Your task to perform on an android device: toggle pop-ups in chrome Image 0: 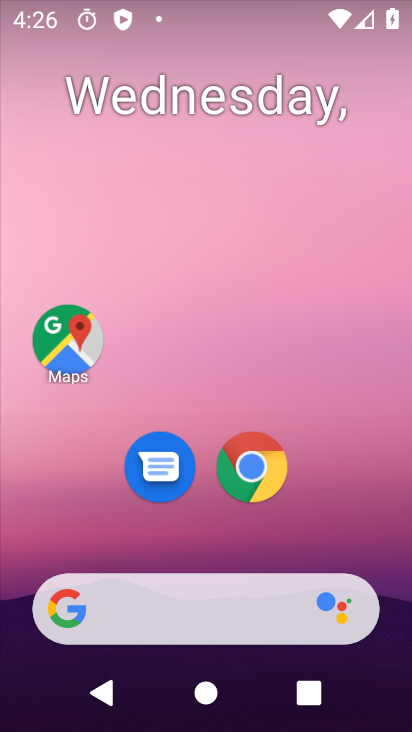
Step 0: click (255, 466)
Your task to perform on an android device: toggle pop-ups in chrome Image 1: 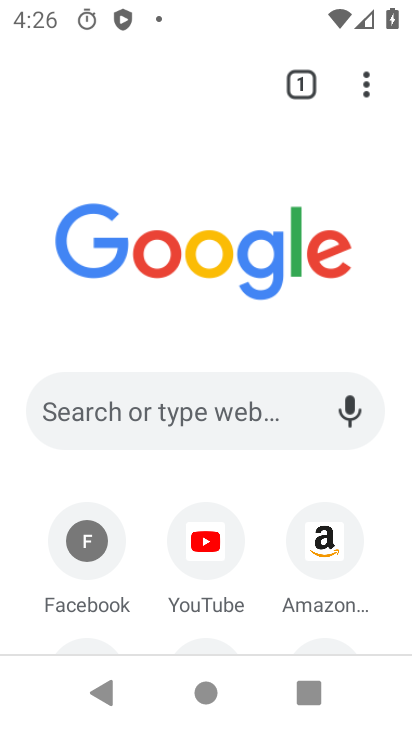
Step 1: click (359, 81)
Your task to perform on an android device: toggle pop-ups in chrome Image 2: 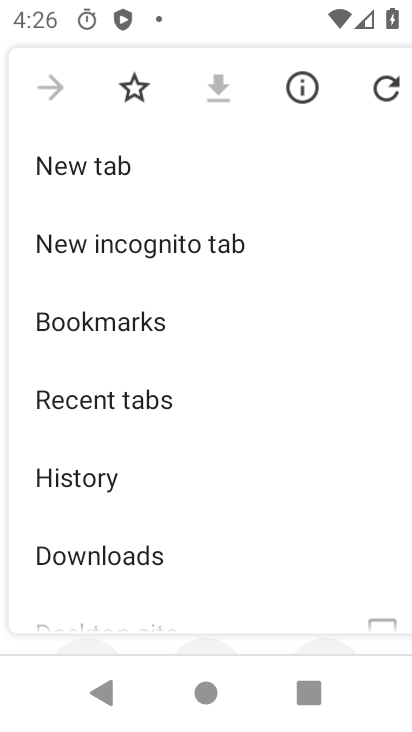
Step 2: drag from (233, 588) to (267, 273)
Your task to perform on an android device: toggle pop-ups in chrome Image 3: 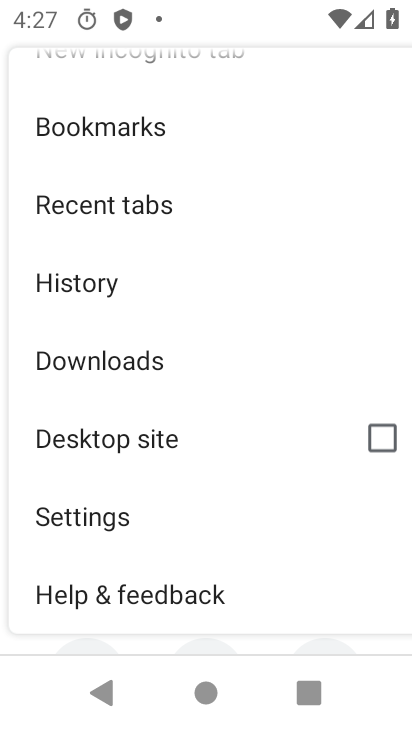
Step 3: click (91, 518)
Your task to perform on an android device: toggle pop-ups in chrome Image 4: 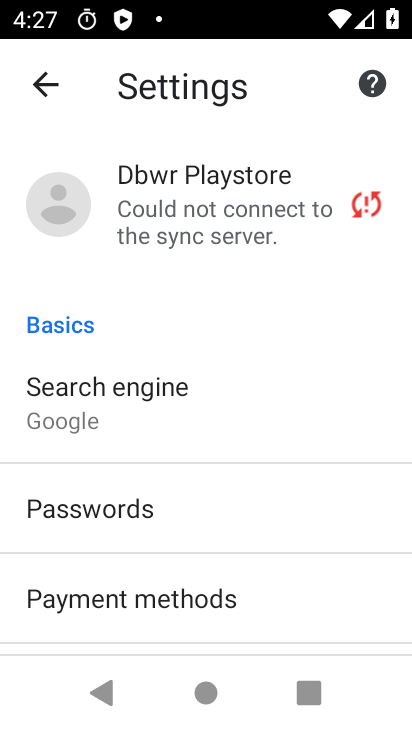
Step 4: drag from (318, 318) to (319, 283)
Your task to perform on an android device: toggle pop-ups in chrome Image 5: 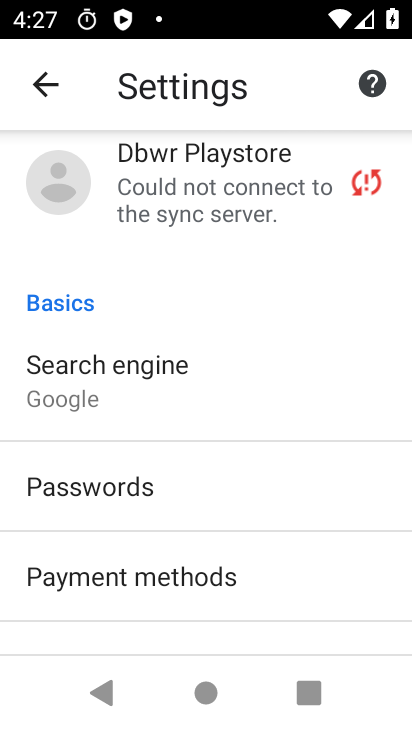
Step 5: drag from (274, 589) to (252, 269)
Your task to perform on an android device: toggle pop-ups in chrome Image 6: 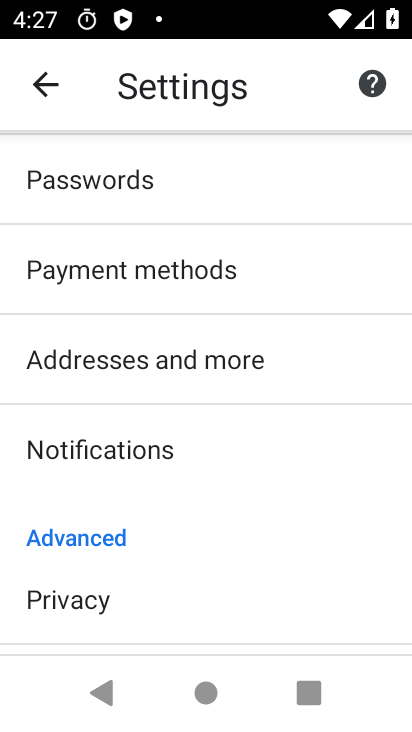
Step 6: drag from (169, 603) to (209, 300)
Your task to perform on an android device: toggle pop-ups in chrome Image 7: 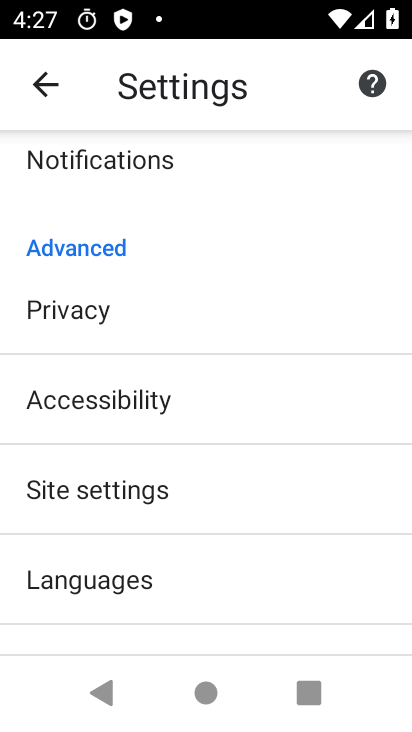
Step 7: click (109, 485)
Your task to perform on an android device: toggle pop-ups in chrome Image 8: 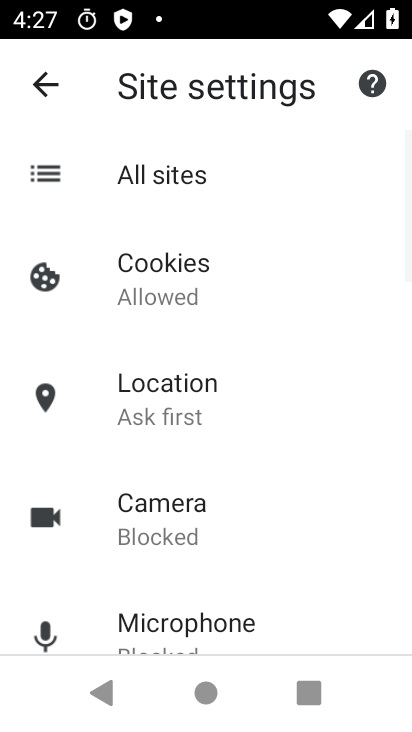
Step 8: drag from (301, 620) to (294, 314)
Your task to perform on an android device: toggle pop-ups in chrome Image 9: 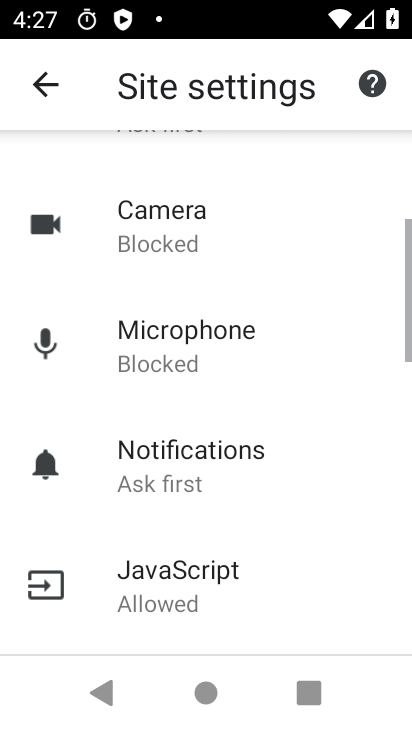
Step 9: drag from (308, 591) to (276, 169)
Your task to perform on an android device: toggle pop-ups in chrome Image 10: 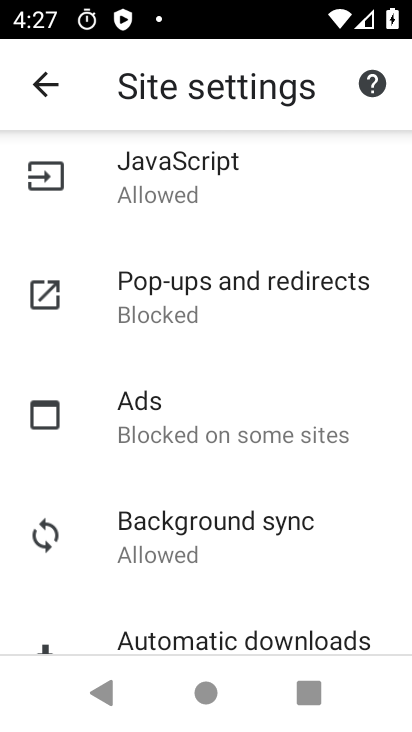
Step 10: click (192, 292)
Your task to perform on an android device: toggle pop-ups in chrome Image 11: 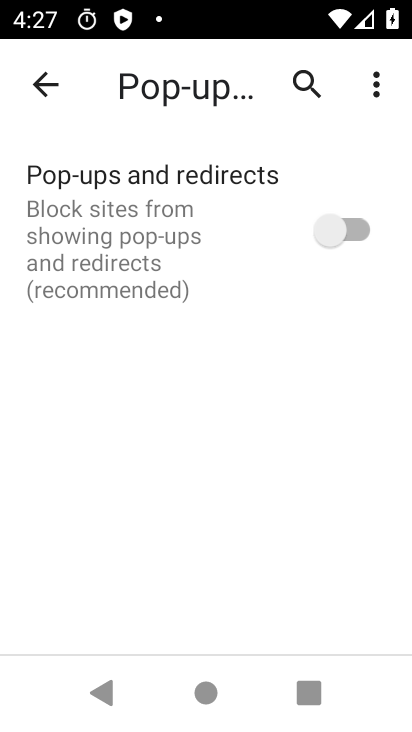
Step 11: click (341, 223)
Your task to perform on an android device: toggle pop-ups in chrome Image 12: 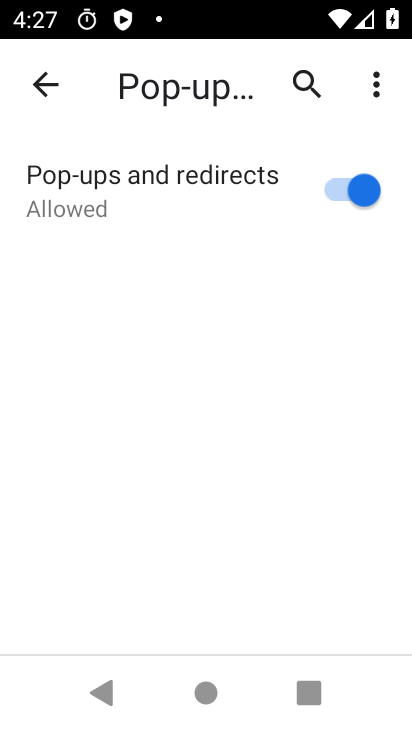
Step 12: task complete